Your task to perform on an android device: open chrome privacy settings Image 0: 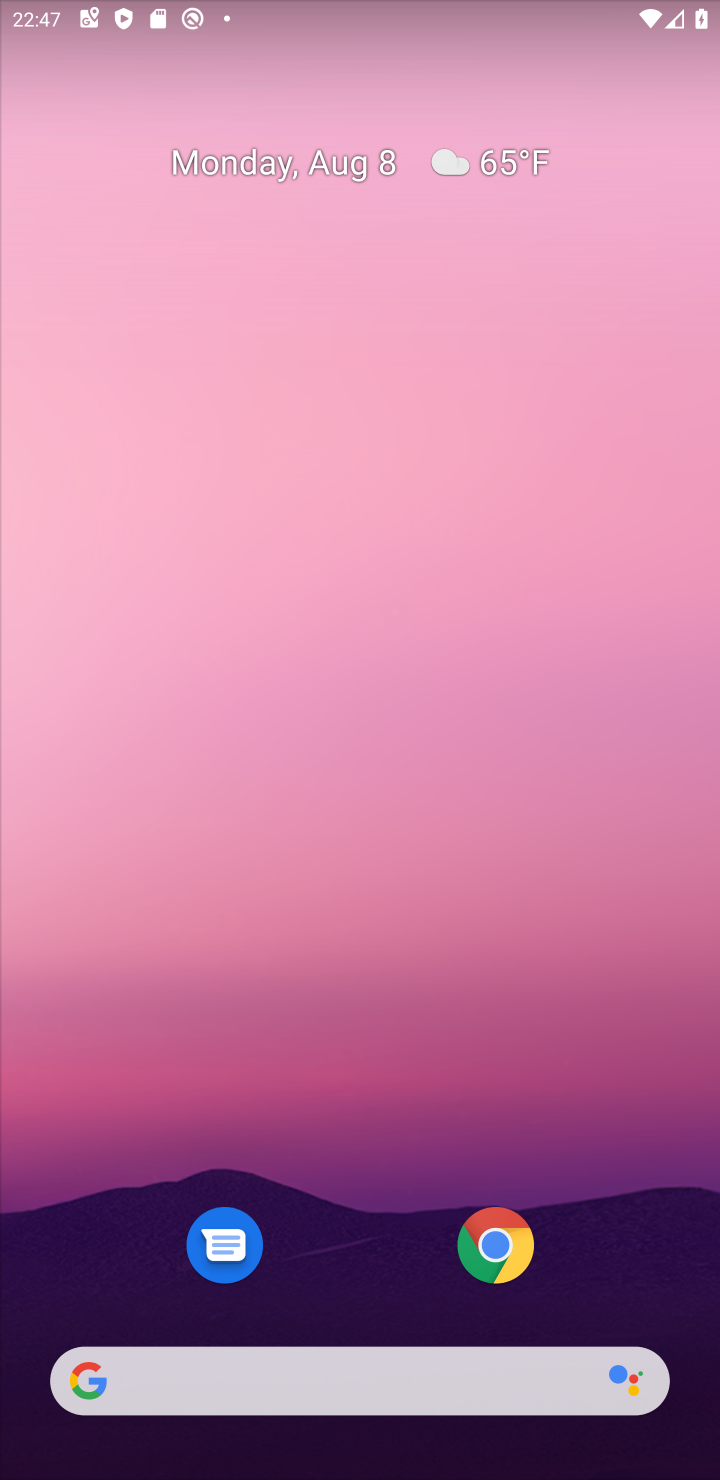
Step 0: click (503, 1245)
Your task to perform on an android device: open chrome privacy settings Image 1: 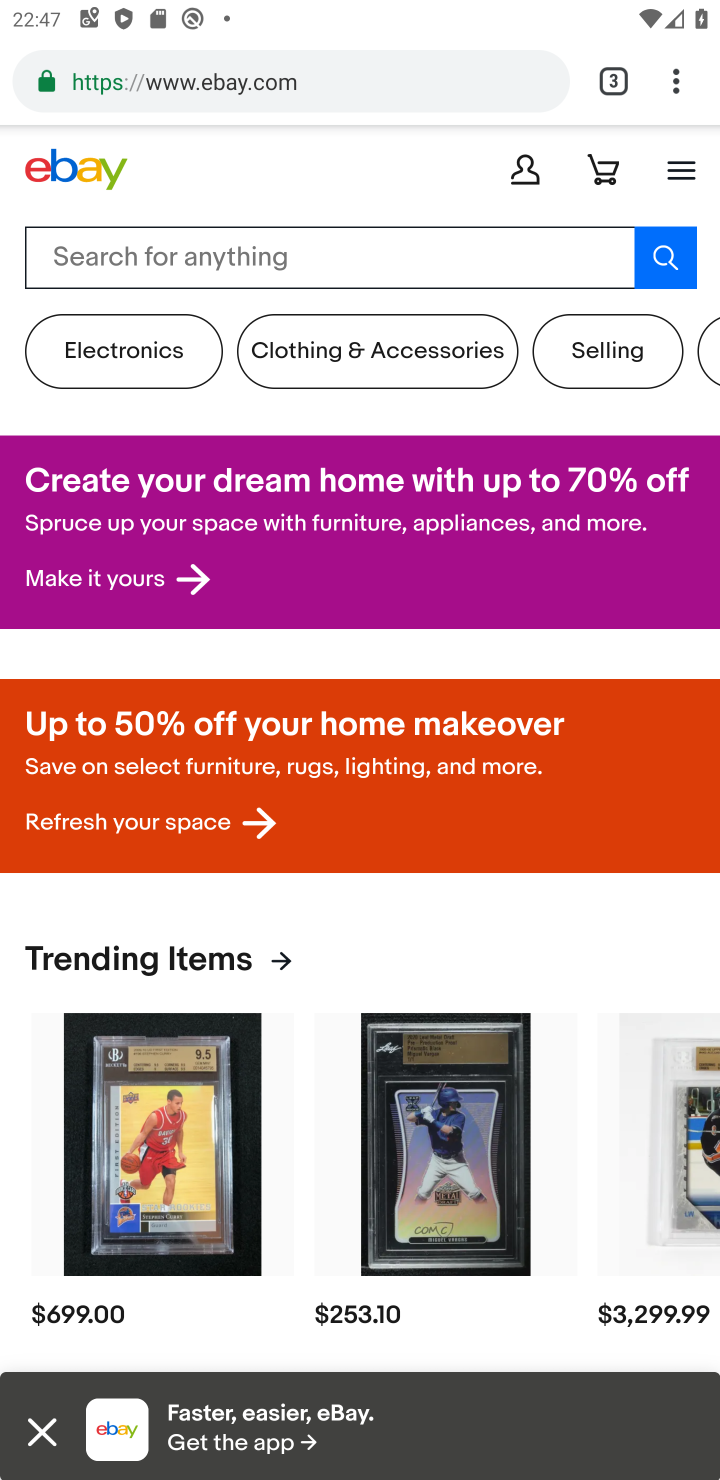
Step 1: click (669, 74)
Your task to perform on an android device: open chrome privacy settings Image 2: 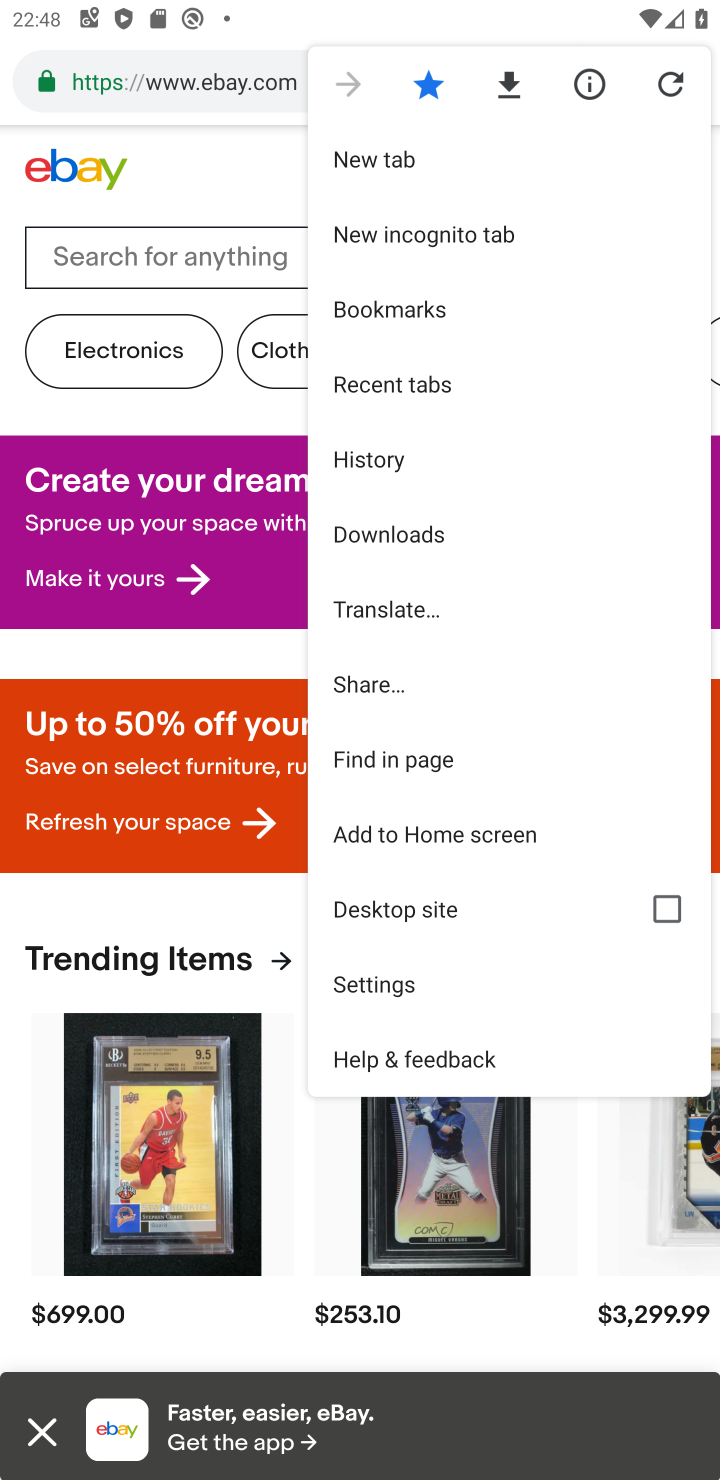
Step 2: click (377, 983)
Your task to perform on an android device: open chrome privacy settings Image 3: 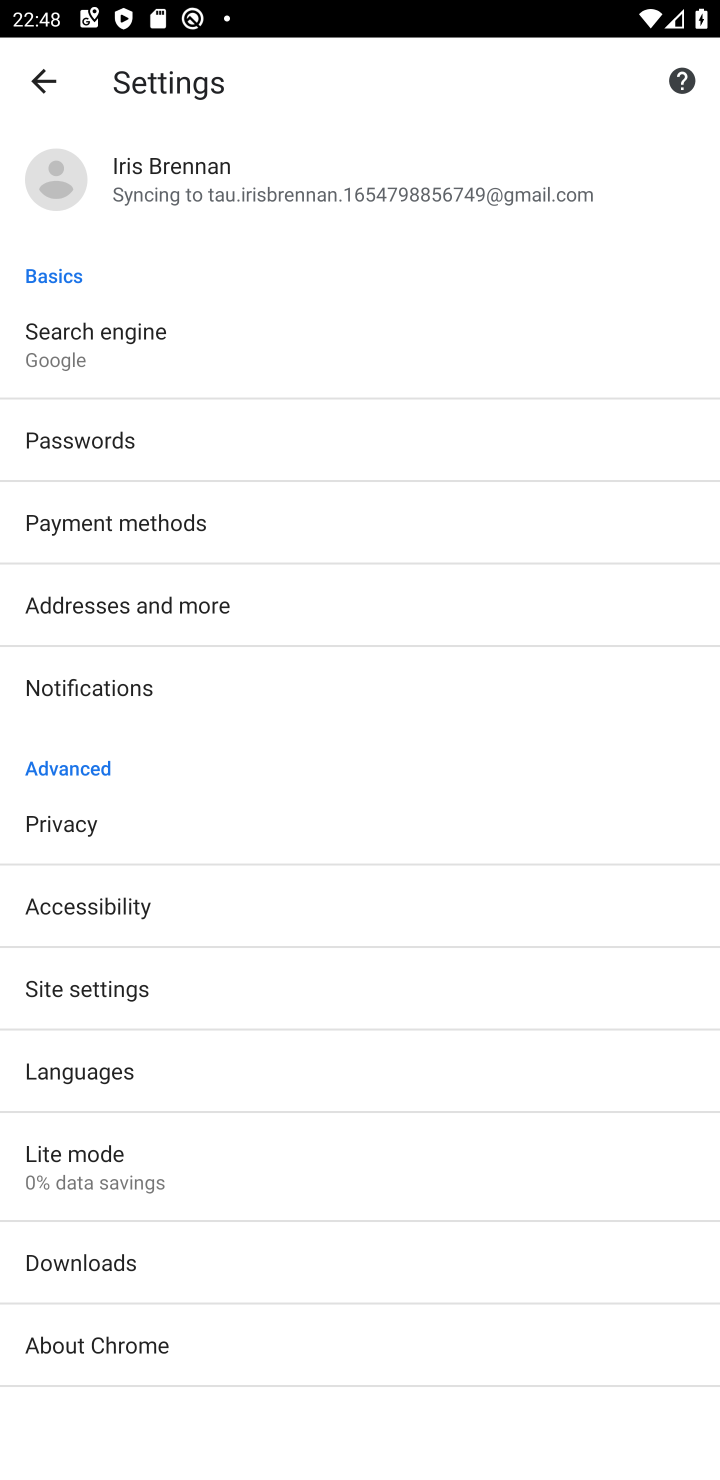
Step 3: click (63, 813)
Your task to perform on an android device: open chrome privacy settings Image 4: 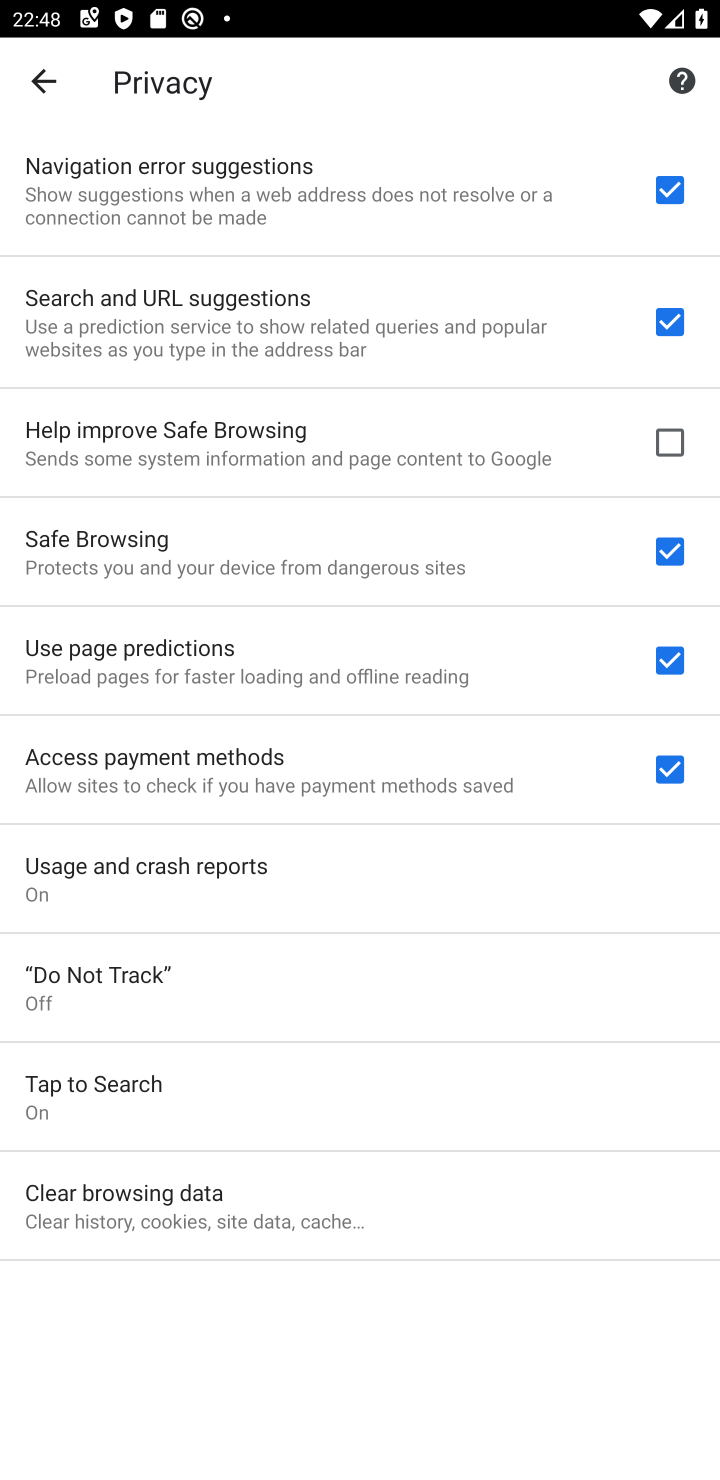
Step 4: task complete